Your task to perform on an android device: Check the weather Image 0: 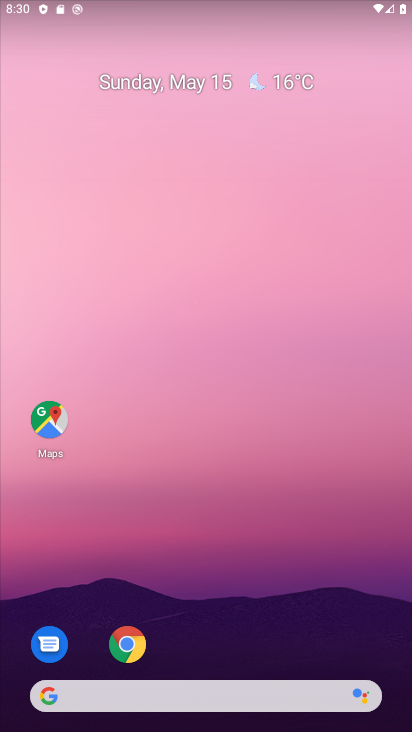
Step 0: click (277, 71)
Your task to perform on an android device: Check the weather Image 1: 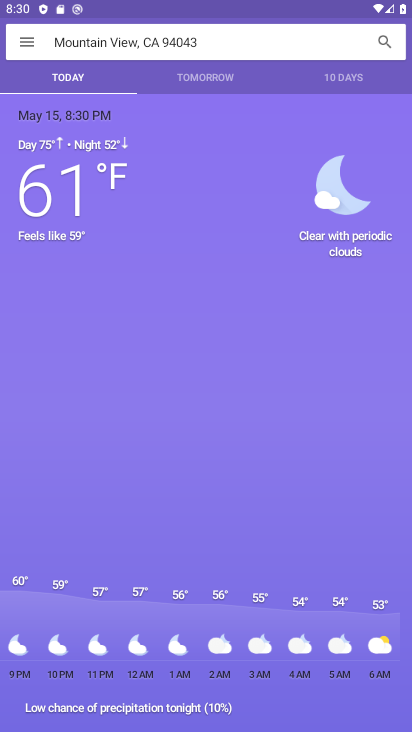
Step 1: task complete